Your task to perform on an android device: Open Youtube and go to the subscriptions tab Image 0: 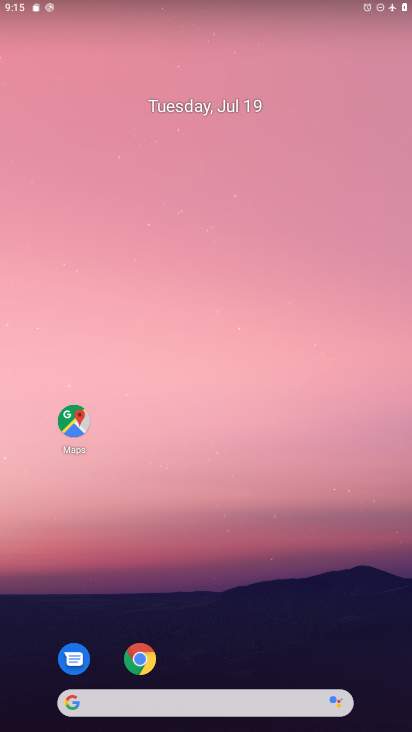
Step 0: drag from (304, 680) to (269, 235)
Your task to perform on an android device: Open Youtube and go to the subscriptions tab Image 1: 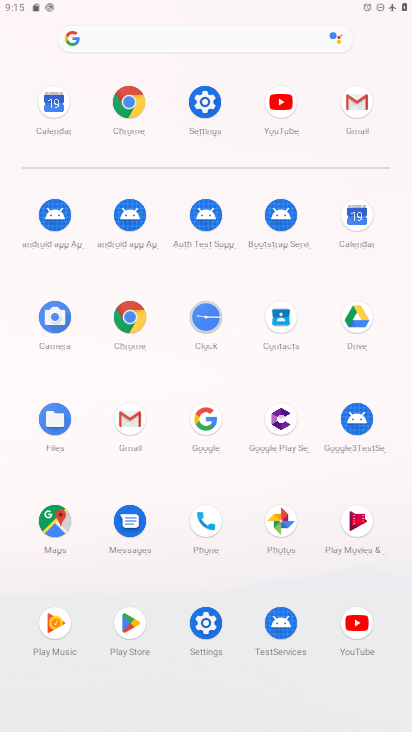
Step 1: click (356, 615)
Your task to perform on an android device: Open Youtube and go to the subscriptions tab Image 2: 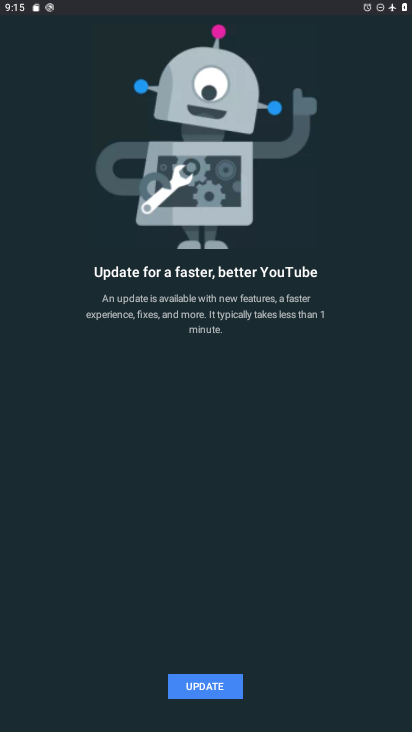
Step 2: task complete